Your task to perform on an android device: turn on showing notifications on the lock screen Image 0: 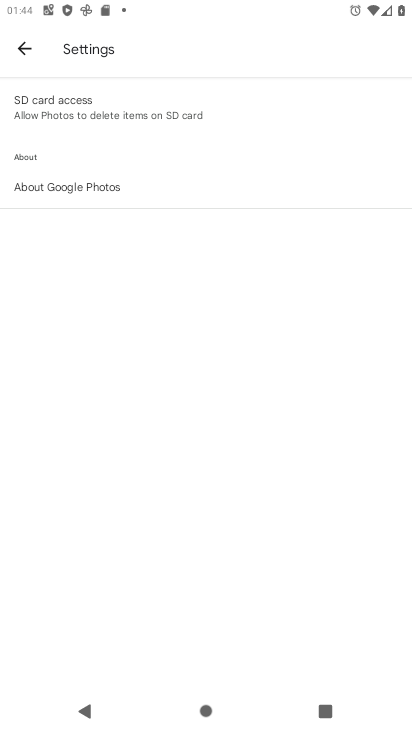
Step 0: press home button
Your task to perform on an android device: turn on showing notifications on the lock screen Image 1: 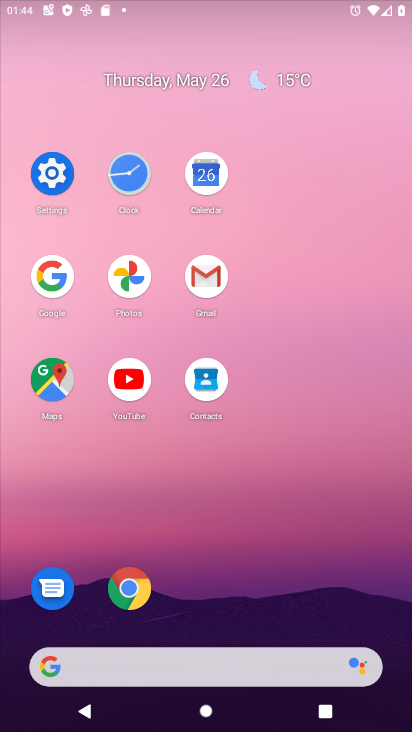
Step 1: click (61, 180)
Your task to perform on an android device: turn on showing notifications on the lock screen Image 2: 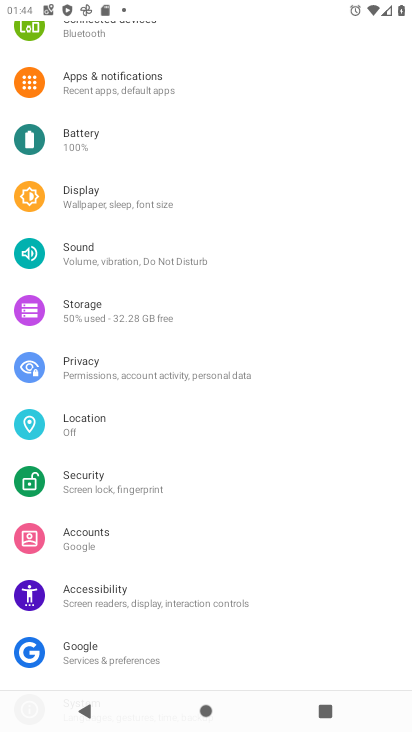
Step 2: click (187, 70)
Your task to perform on an android device: turn on showing notifications on the lock screen Image 3: 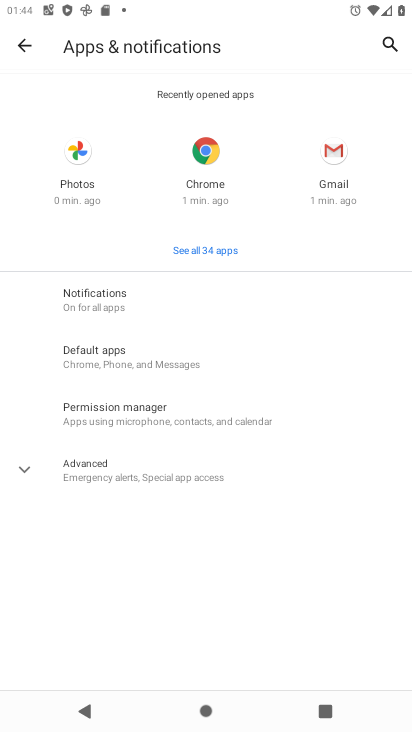
Step 3: click (172, 289)
Your task to perform on an android device: turn on showing notifications on the lock screen Image 4: 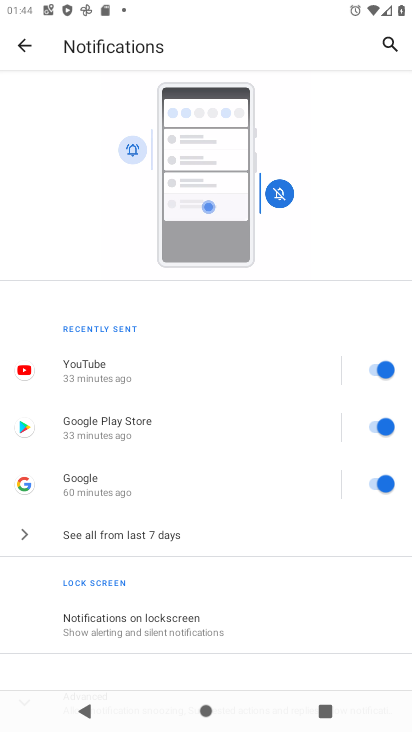
Step 4: click (149, 626)
Your task to perform on an android device: turn on showing notifications on the lock screen Image 5: 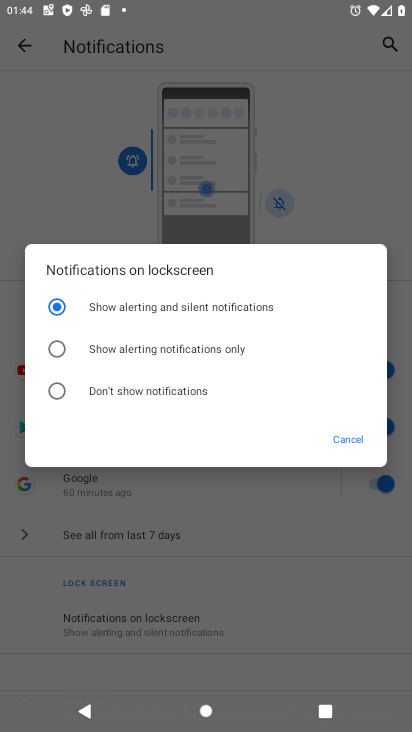
Step 5: task complete